Your task to perform on an android device: Go to Android settings Image 0: 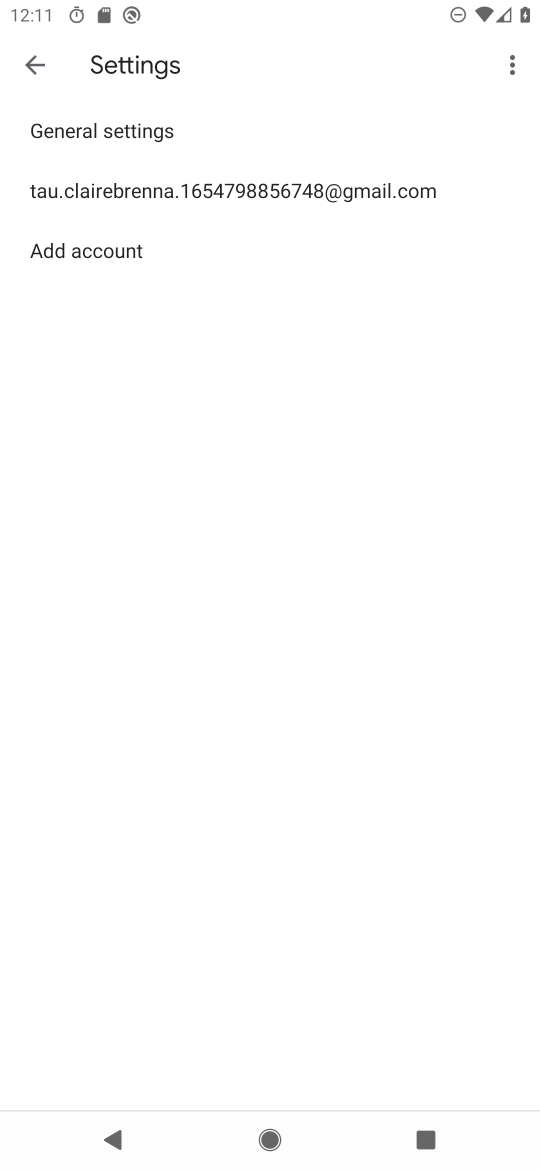
Step 0: press home button
Your task to perform on an android device: Go to Android settings Image 1: 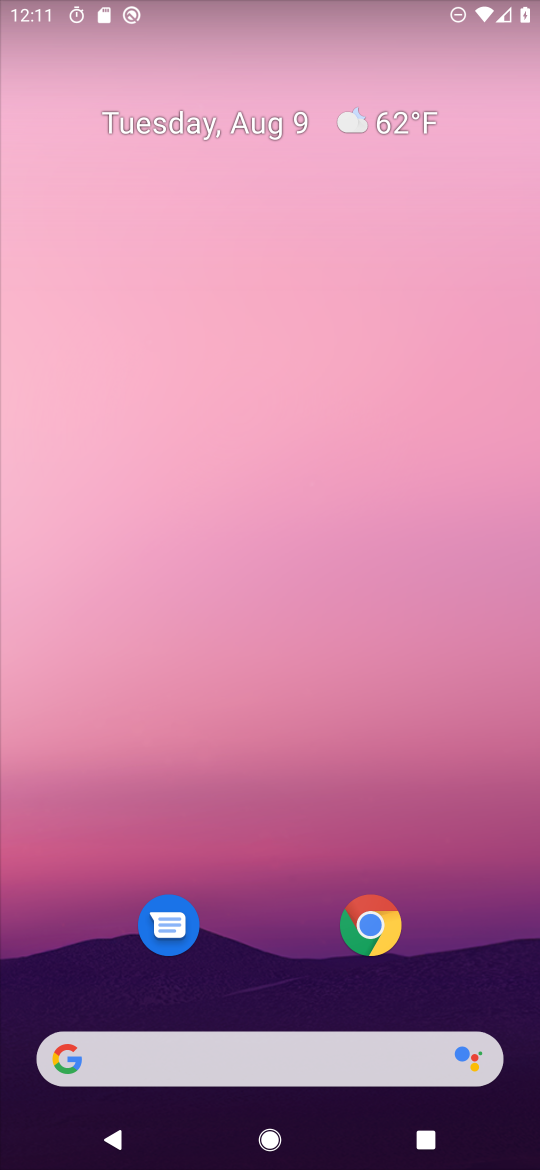
Step 1: drag from (270, 934) to (361, 261)
Your task to perform on an android device: Go to Android settings Image 2: 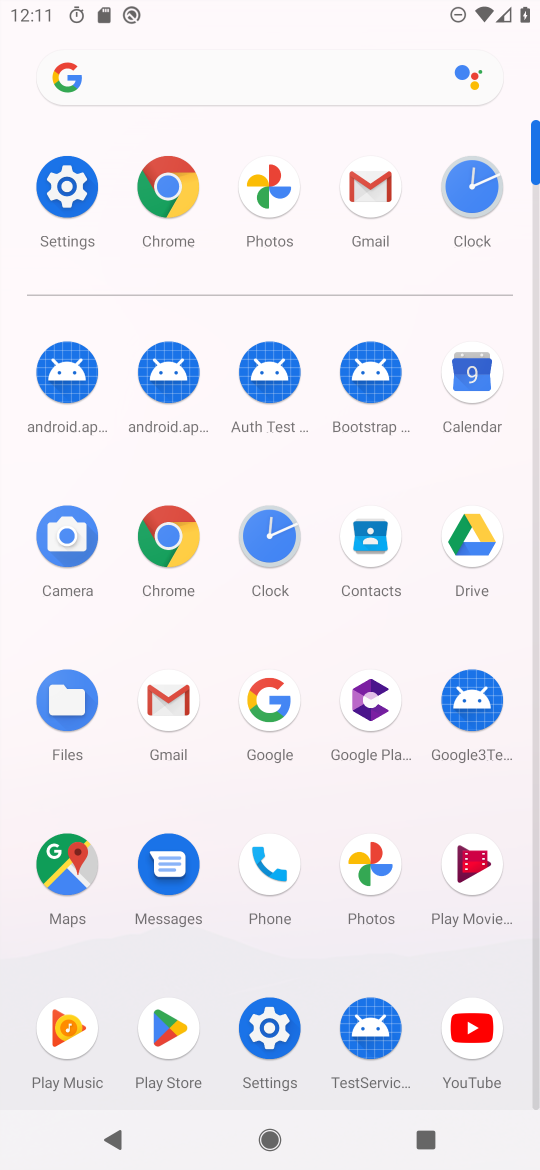
Step 2: click (60, 177)
Your task to perform on an android device: Go to Android settings Image 3: 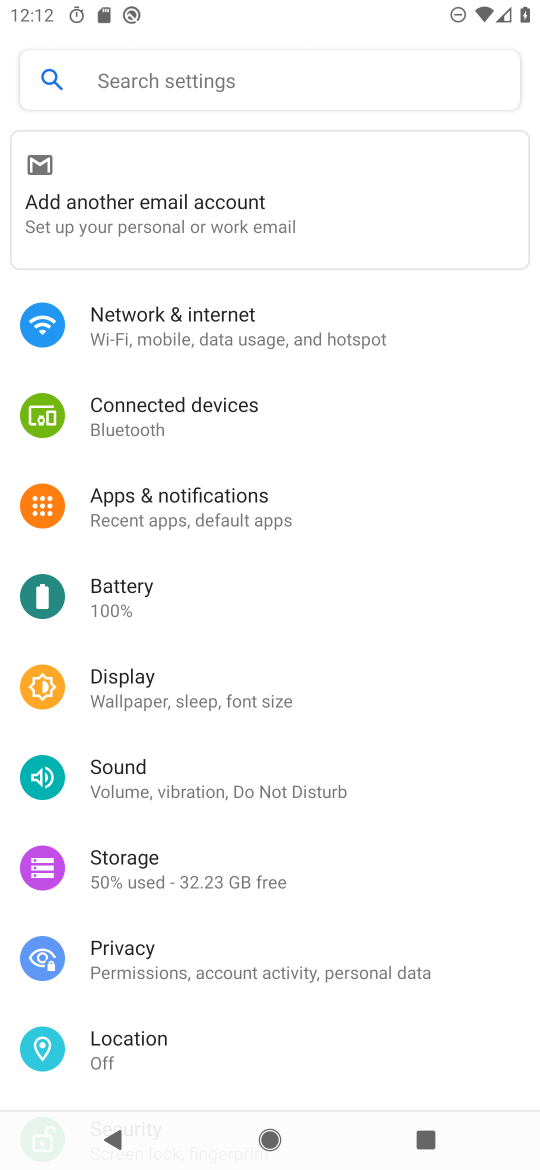
Step 3: task complete